Your task to perform on an android device: allow notifications from all sites in the chrome app Image 0: 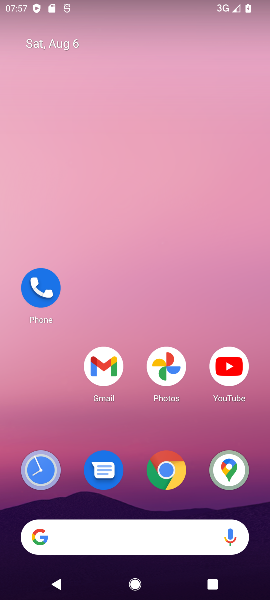
Step 0: click (155, 465)
Your task to perform on an android device: allow notifications from all sites in the chrome app Image 1: 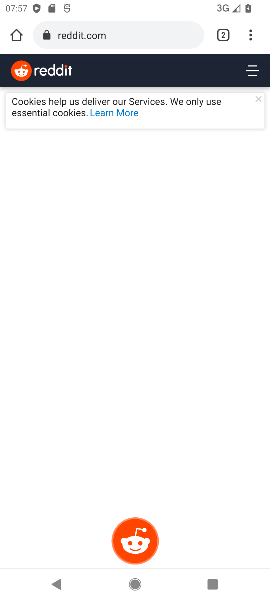
Step 1: press home button
Your task to perform on an android device: allow notifications from all sites in the chrome app Image 2: 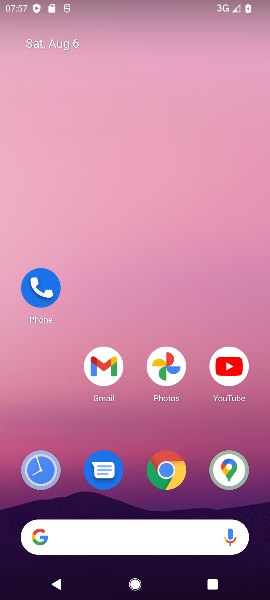
Step 2: click (177, 479)
Your task to perform on an android device: allow notifications from all sites in the chrome app Image 3: 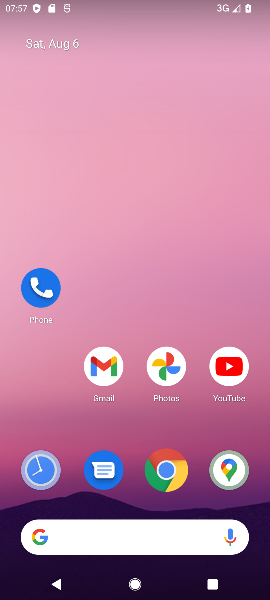
Step 3: click (177, 479)
Your task to perform on an android device: allow notifications from all sites in the chrome app Image 4: 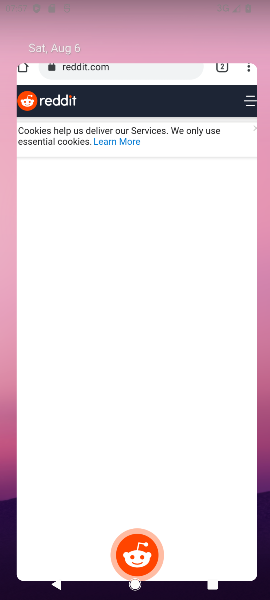
Step 4: click (177, 479)
Your task to perform on an android device: allow notifications from all sites in the chrome app Image 5: 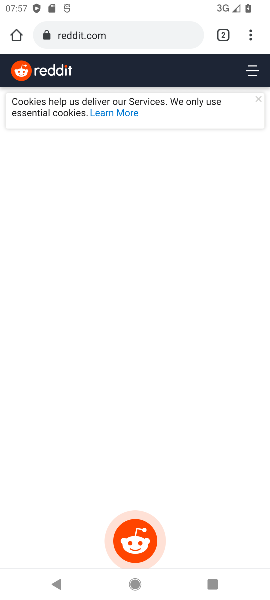
Step 5: press home button
Your task to perform on an android device: allow notifications from all sites in the chrome app Image 6: 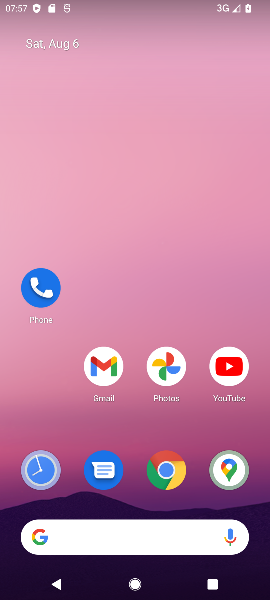
Step 6: click (172, 480)
Your task to perform on an android device: allow notifications from all sites in the chrome app Image 7: 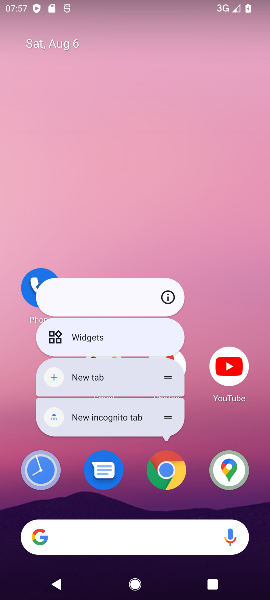
Step 7: click (161, 298)
Your task to perform on an android device: allow notifications from all sites in the chrome app Image 8: 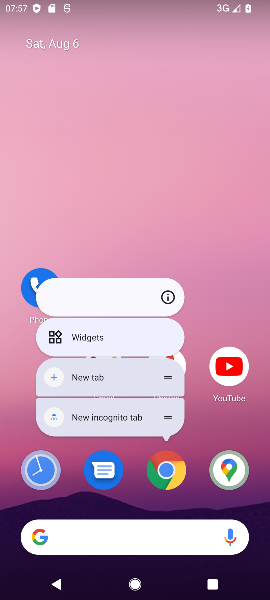
Step 8: click (164, 295)
Your task to perform on an android device: allow notifications from all sites in the chrome app Image 9: 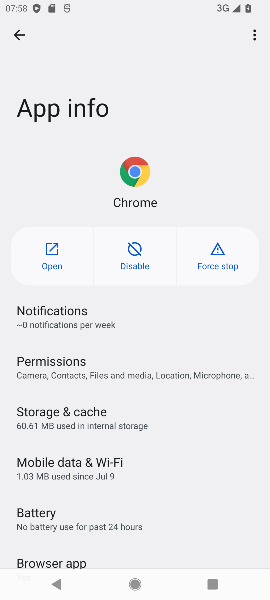
Step 9: click (104, 386)
Your task to perform on an android device: allow notifications from all sites in the chrome app Image 10: 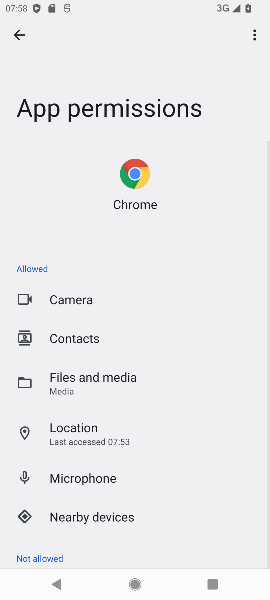
Step 10: task complete